Your task to perform on an android device: turn on notifications settings in the gmail app Image 0: 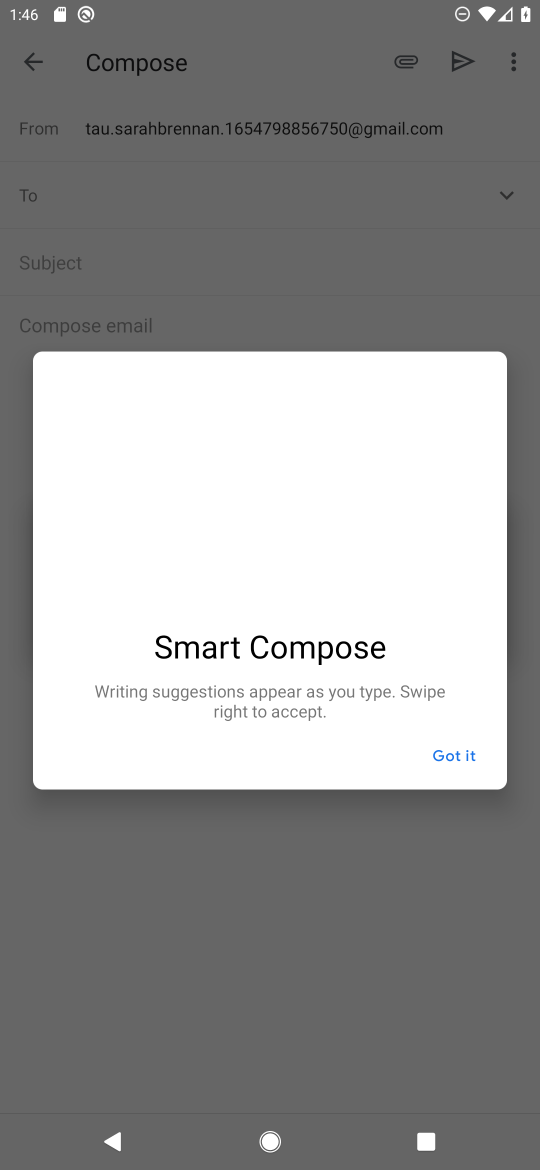
Step 0: press home button
Your task to perform on an android device: turn on notifications settings in the gmail app Image 1: 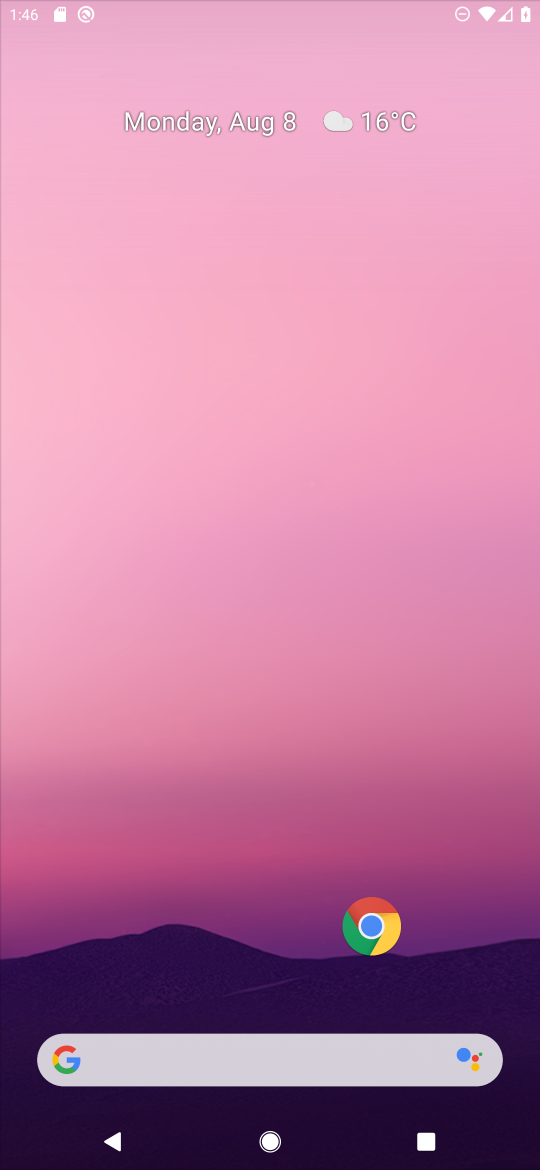
Step 1: drag from (182, 1072) to (252, 148)
Your task to perform on an android device: turn on notifications settings in the gmail app Image 2: 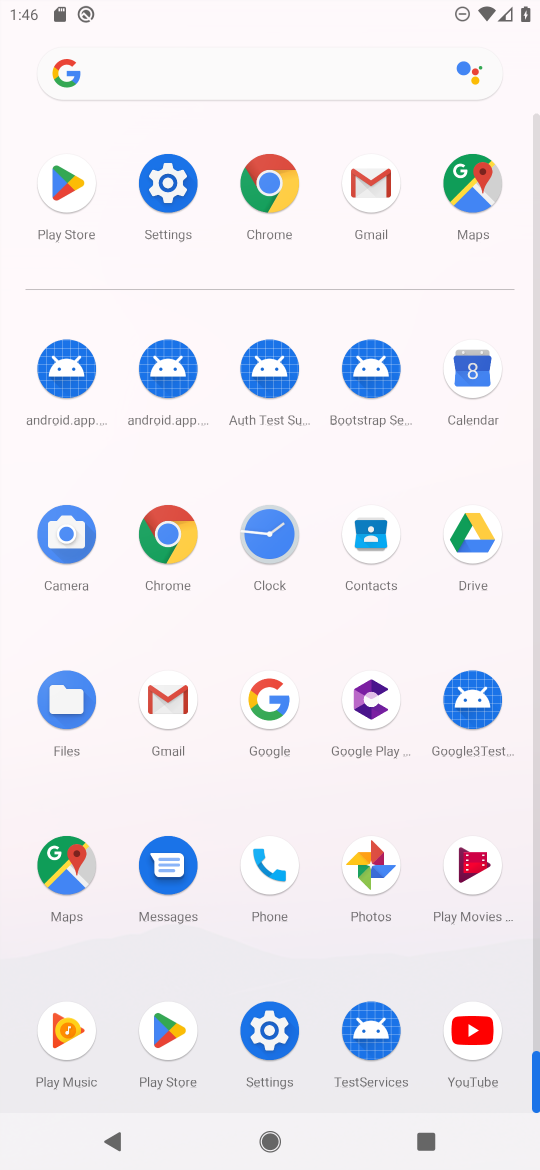
Step 2: click (159, 690)
Your task to perform on an android device: turn on notifications settings in the gmail app Image 3: 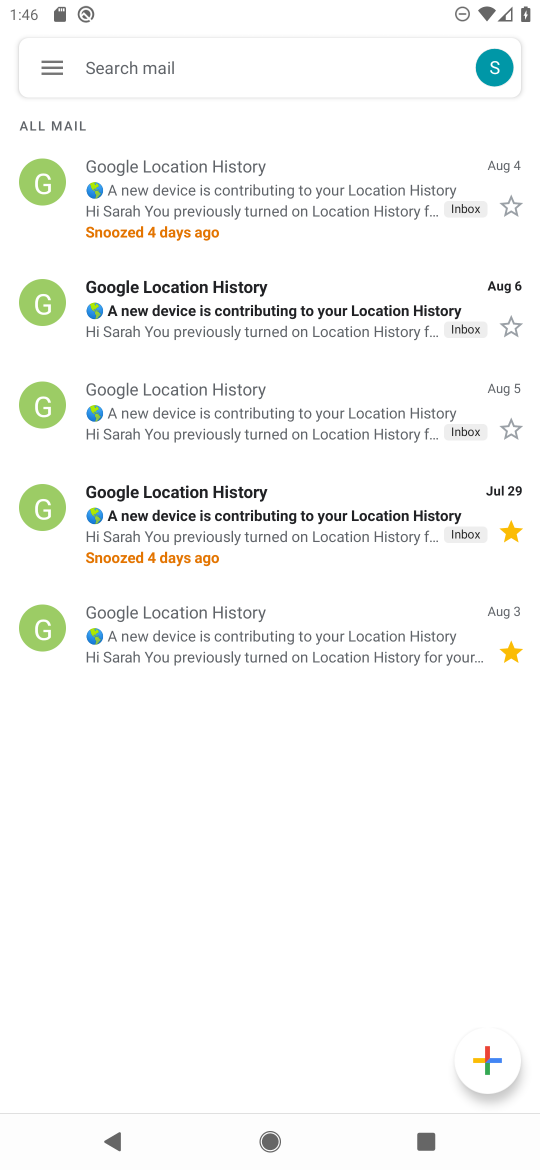
Step 3: click (50, 74)
Your task to perform on an android device: turn on notifications settings in the gmail app Image 4: 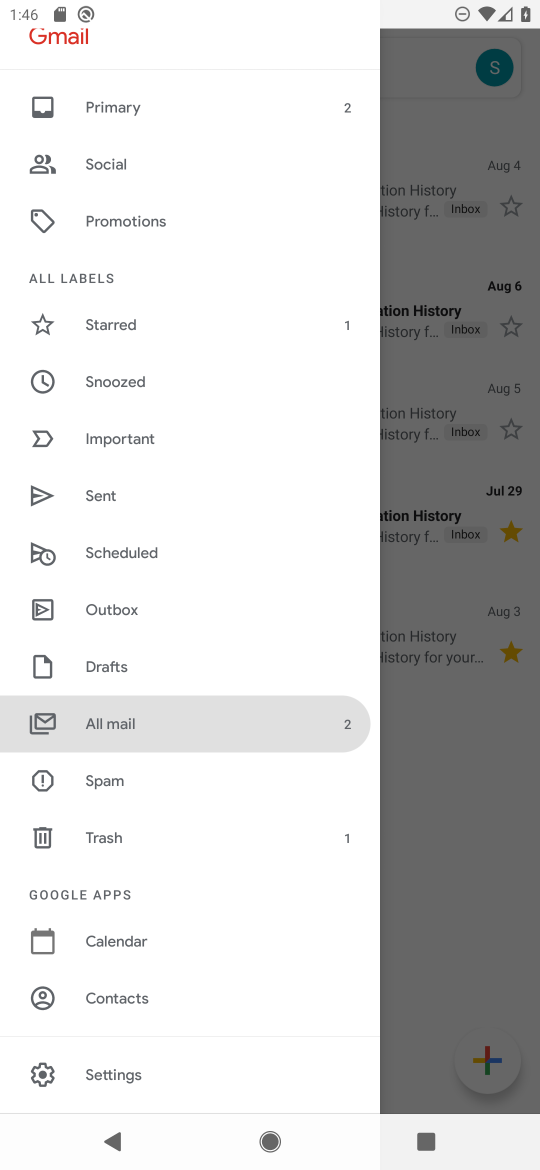
Step 4: click (131, 1087)
Your task to perform on an android device: turn on notifications settings in the gmail app Image 5: 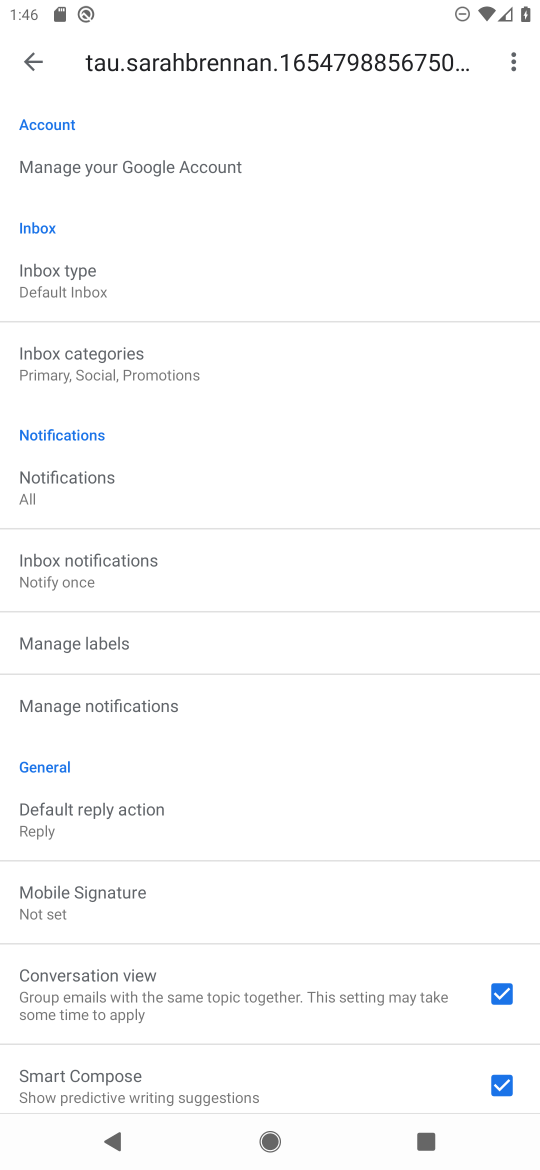
Step 5: click (62, 493)
Your task to perform on an android device: turn on notifications settings in the gmail app Image 6: 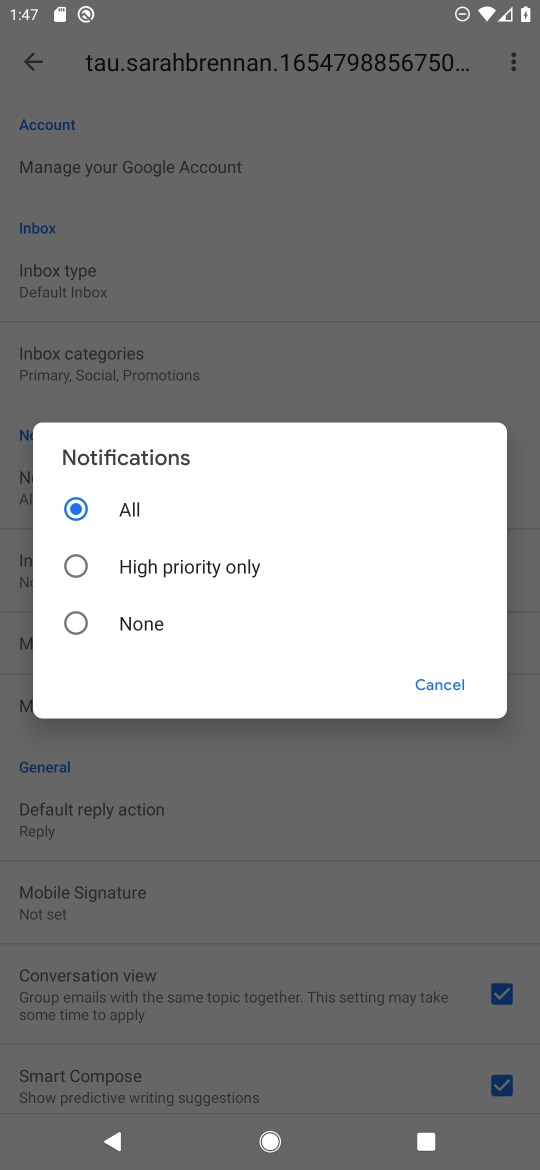
Step 6: task complete